Your task to perform on an android device: Search for pizza restaurants on Maps Image 0: 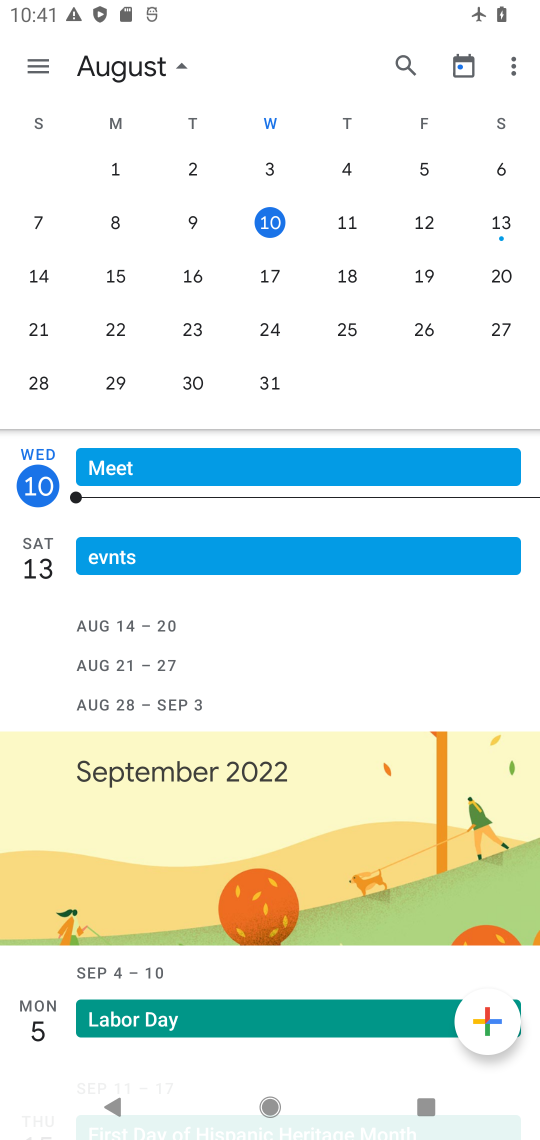
Step 0: press home button
Your task to perform on an android device: Search for pizza restaurants on Maps Image 1: 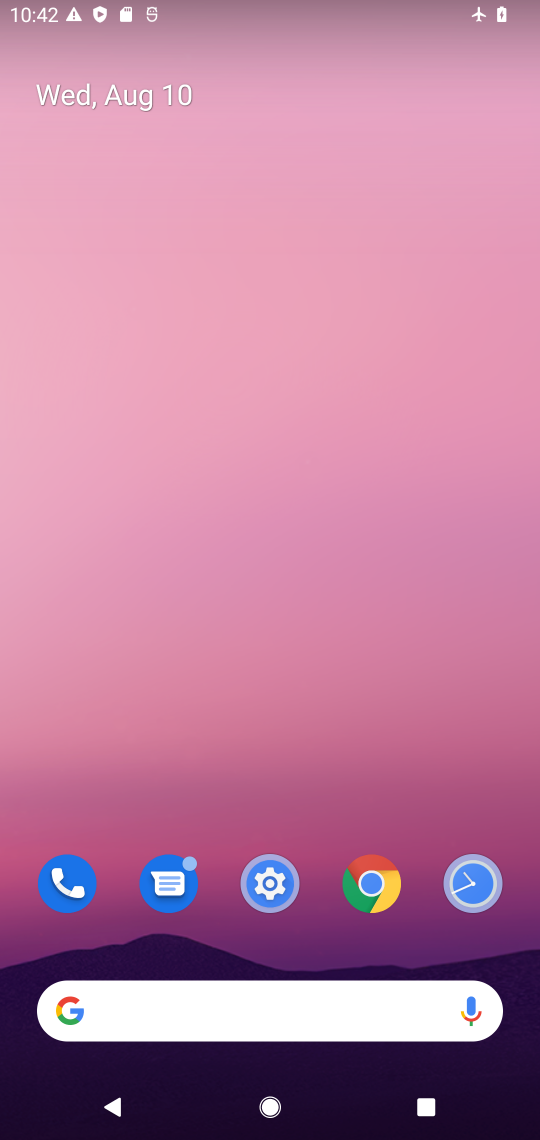
Step 1: drag from (372, 842) to (415, 14)
Your task to perform on an android device: Search for pizza restaurants on Maps Image 2: 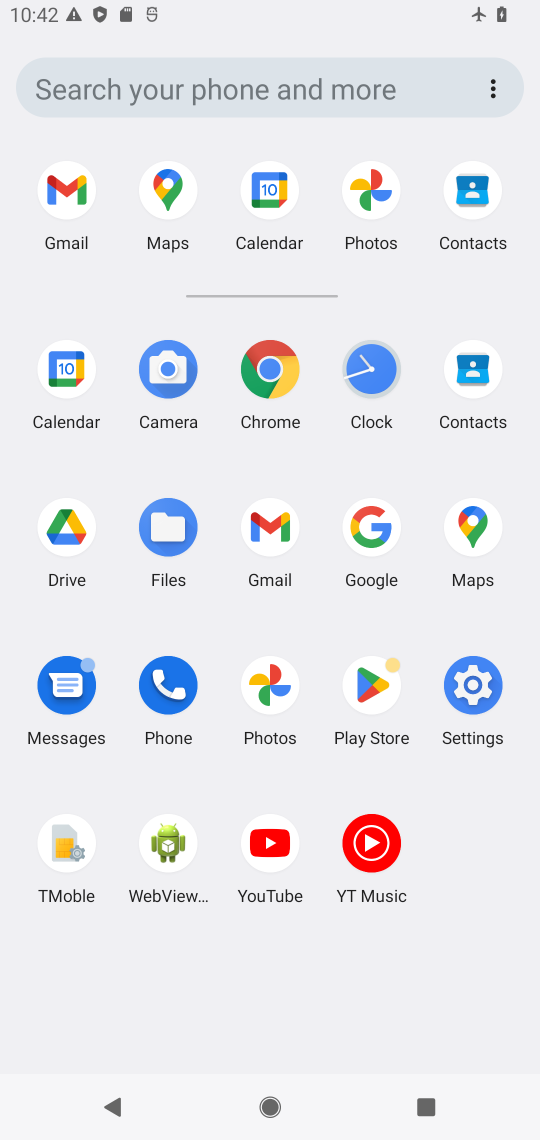
Step 2: click (473, 517)
Your task to perform on an android device: Search for pizza restaurants on Maps Image 3: 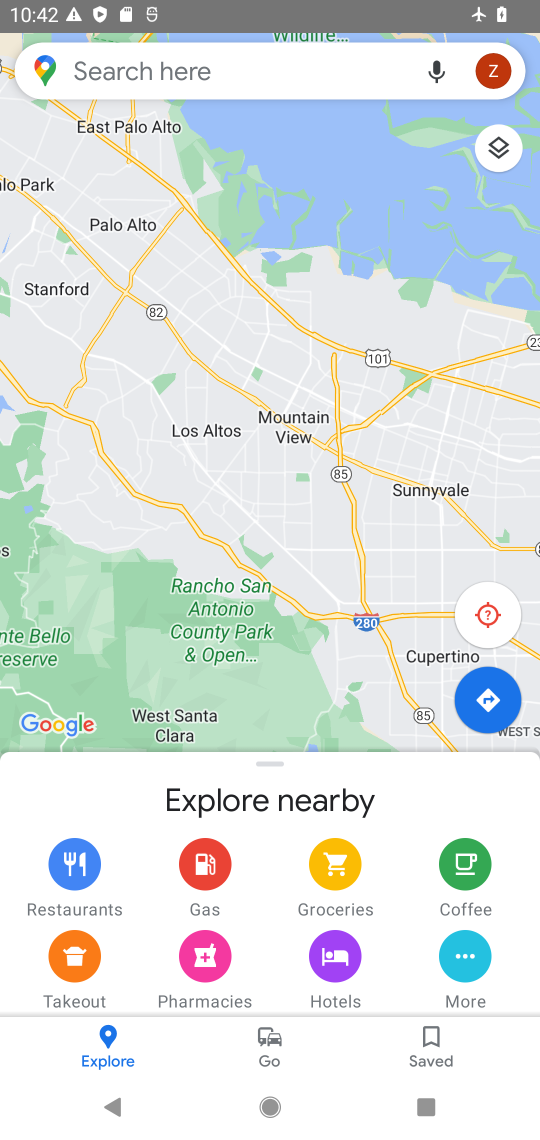
Step 3: click (191, 69)
Your task to perform on an android device: Search for pizza restaurants on Maps Image 4: 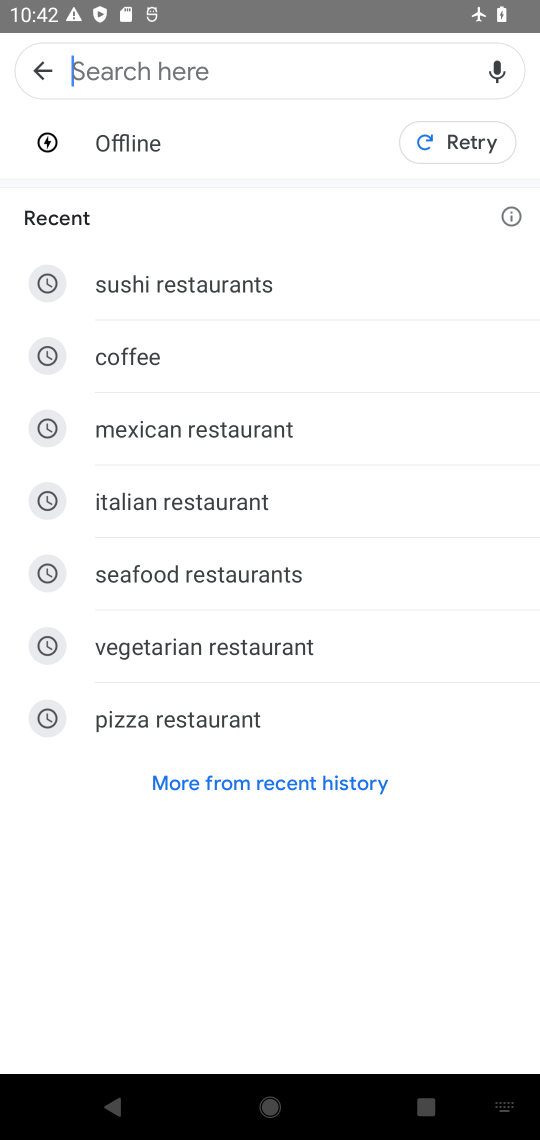
Step 4: type "pizza restaurants"
Your task to perform on an android device: Search for pizza restaurants on Maps Image 5: 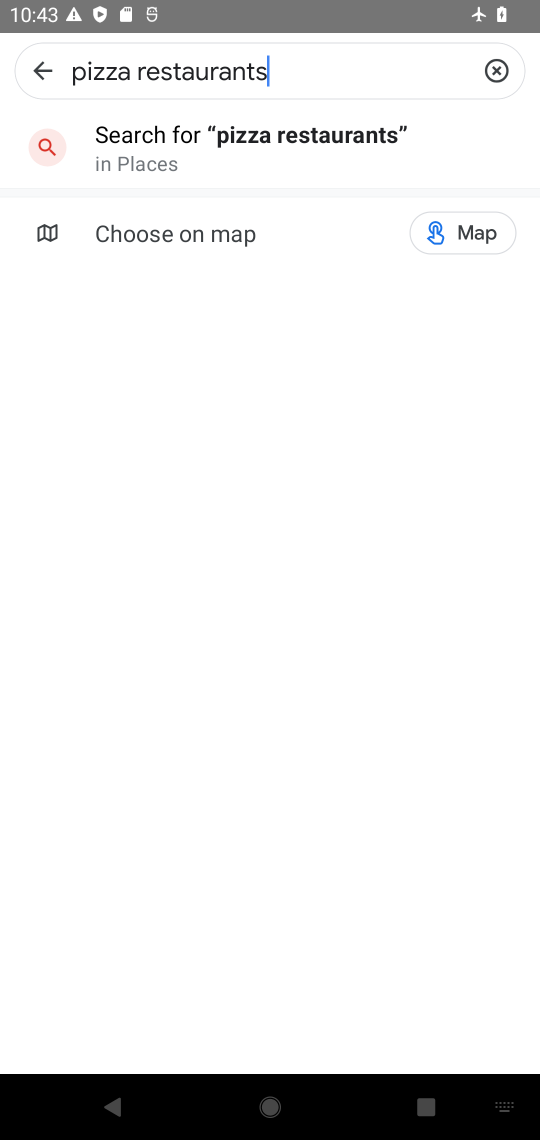
Step 5: click (235, 128)
Your task to perform on an android device: Search for pizza restaurants on Maps Image 6: 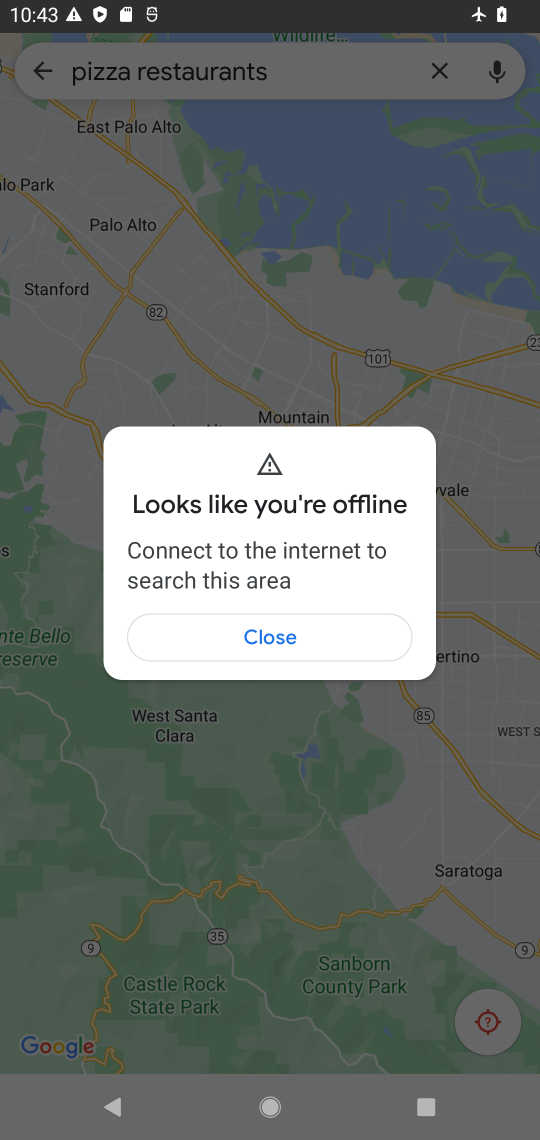
Step 6: drag from (315, 35) to (301, 907)
Your task to perform on an android device: Search for pizza restaurants on Maps Image 7: 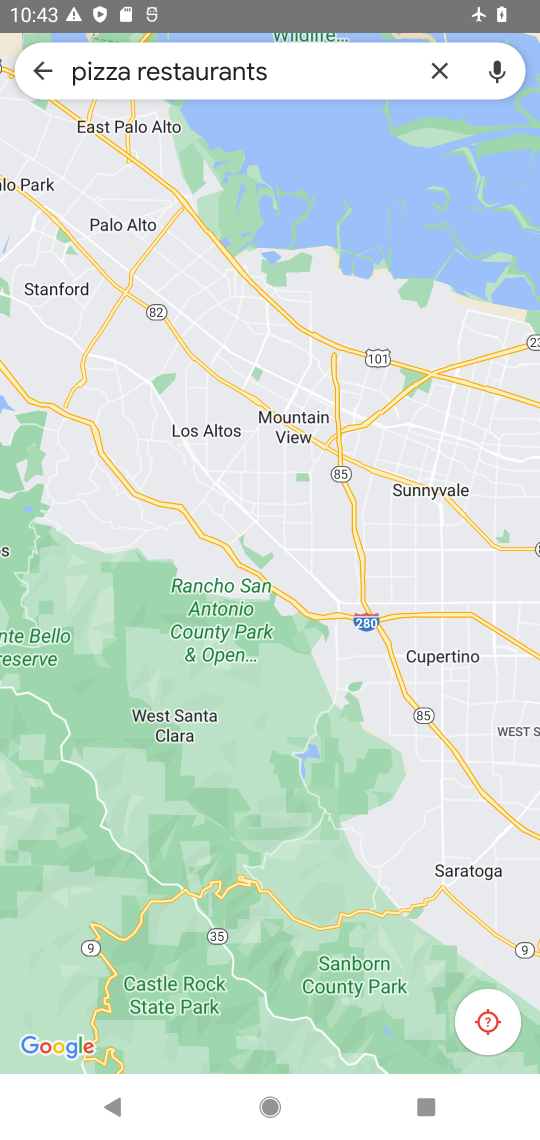
Step 7: drag from (375, 26) to (351, 679)
Your task to perform on an android device: Search for pizza restaurants on Maps Image 8: 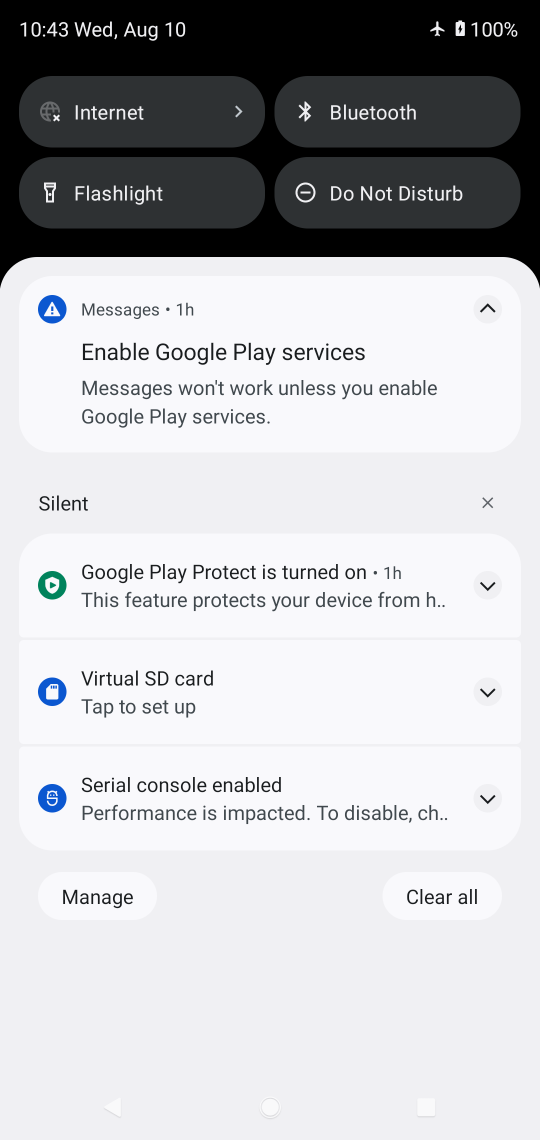
Step 8: drag from (270, 248) to (252, 972)
Your task to perform on an android device: Search for pizza restaurants on Maps Image 9: 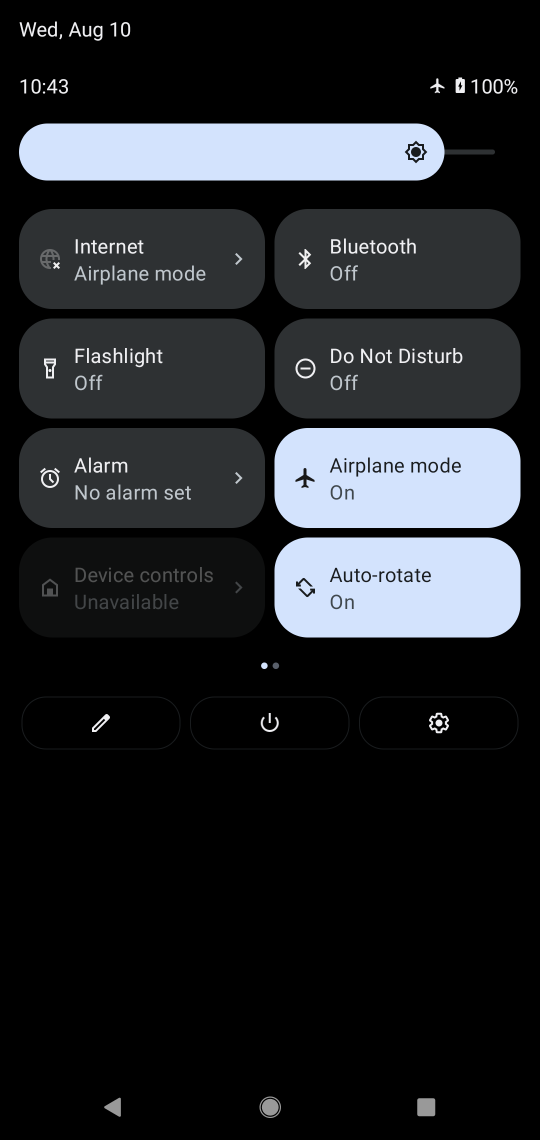
Step 9: click (346, 465)
Your task to perform on an android device: Search for pizza restaurants on Maps Image 10: 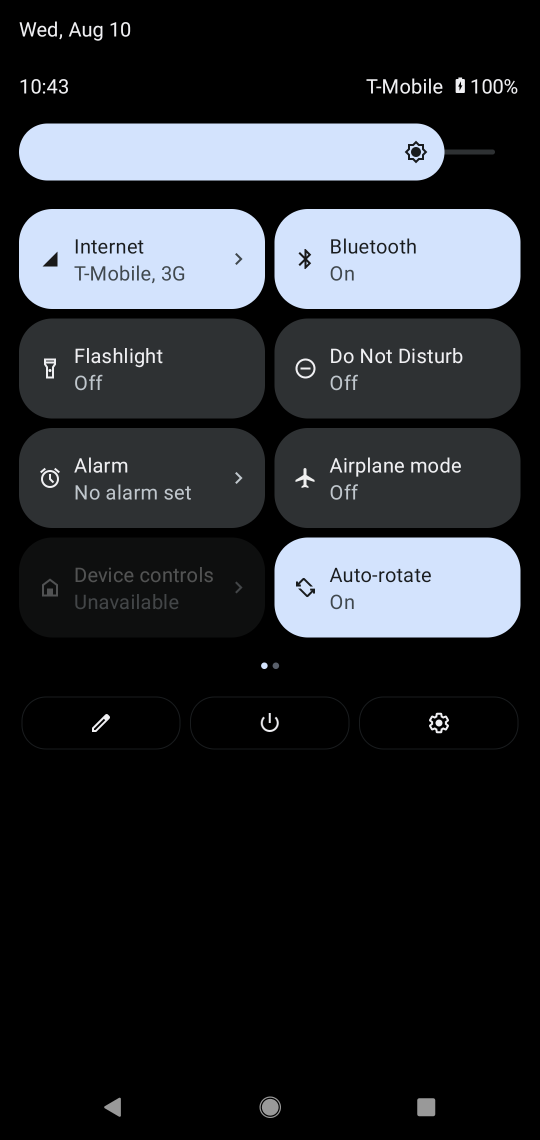
Step 10: task complete